Your task to perform on an android device: manage bookmarks in the chrome app Image 0: 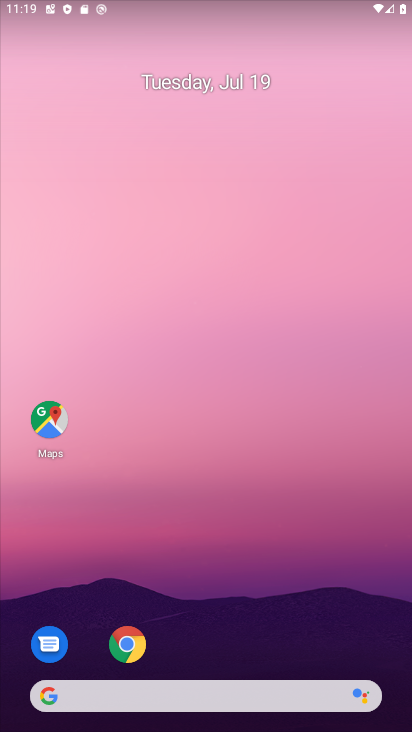
Step 0: press home button
Your task to perform on an android device: manage bookmarks in the chrome app Image 1: 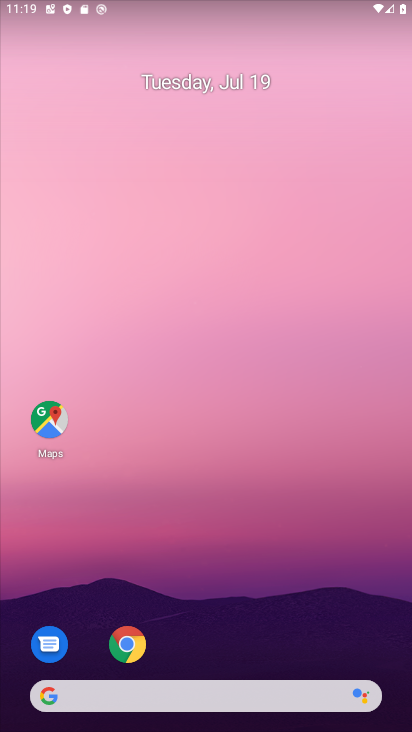
Step 1: drag from (241, 670) to (174, 78)
Your task to perform on an android device: manage bookmarks in the chrome app Image 2: 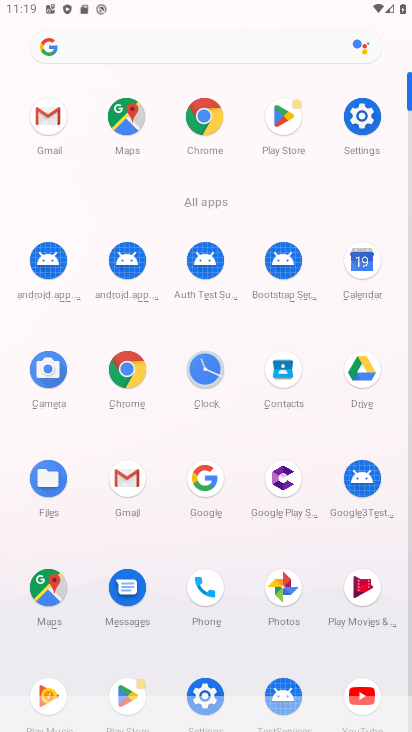
Step 2: click (192, 104)
Your task to perform on an android device: manage bookmarks in the chrome app Image 3: 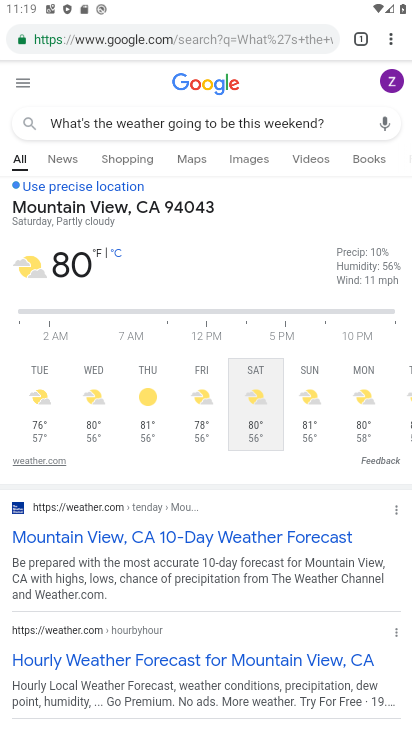
Step 3: task complete